Your task to perform on an android device: Search for pizza restaurants on Maps Image 0: 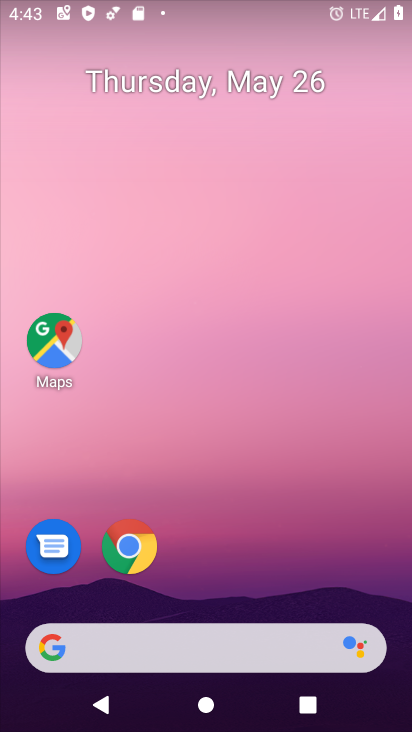
Step 0: click (60, 346)
Your task to perform on an android device: Search for pizza restaurants on Maps Image 1: 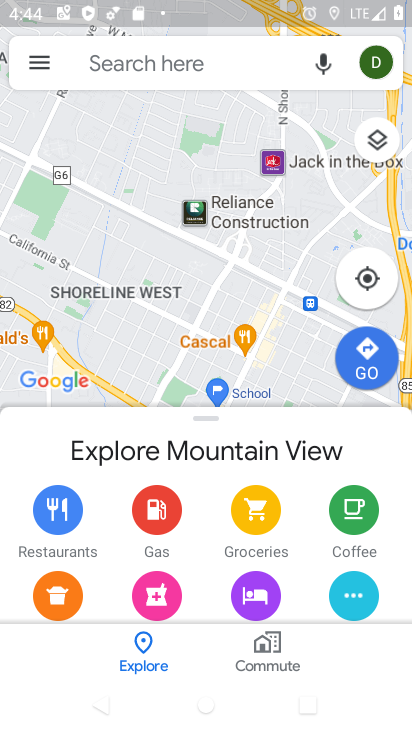
Step 1: click (166, 54)
Your task to perform on an android device: Search for pizza restaurants on Maps Image 2: 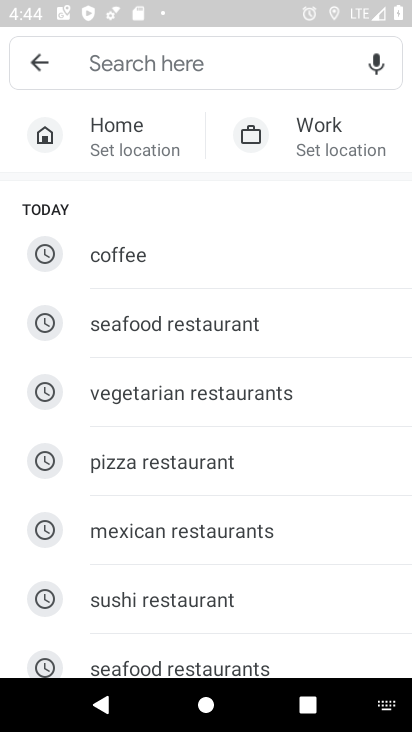
Step 2: click (189, 453)
Your task to perform on an android device: Search for pizza restaurants on Maps Image 3: 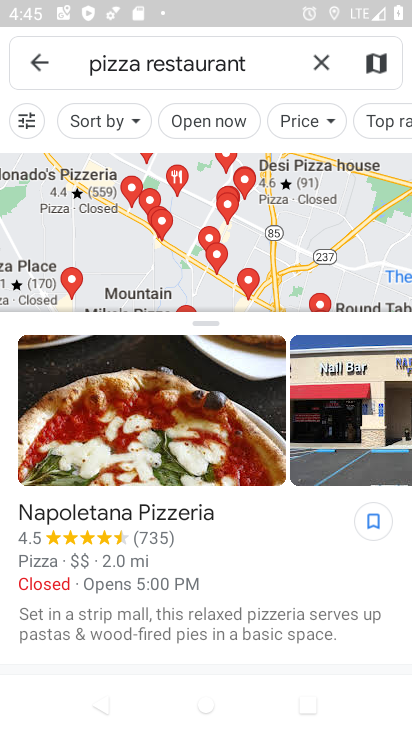
Step 3: task complete